Your task to perform on an android device: turn off location Image 0: 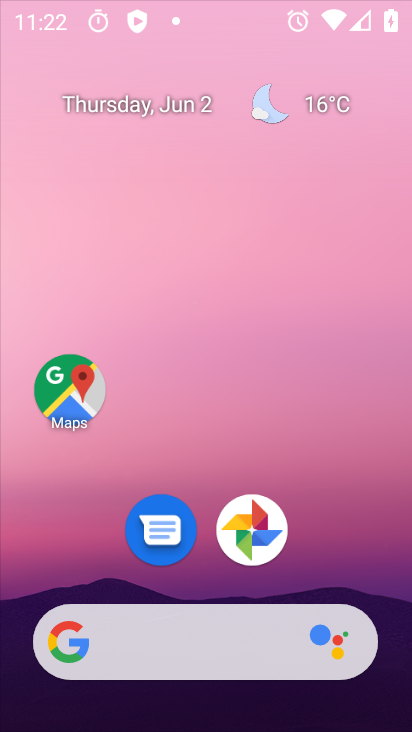
Step 0: drag from (179, 414) to (110, 67)
Your task to perform on an android device: turn off location Image 1: 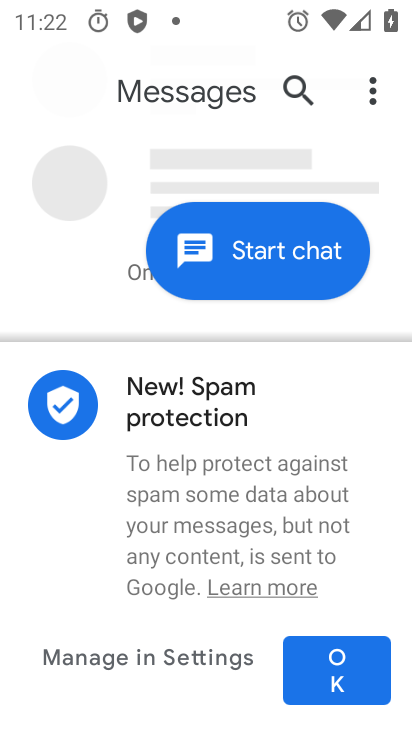
Step 1: press back button
Your task to perform on an android device: turn off location Image 2: 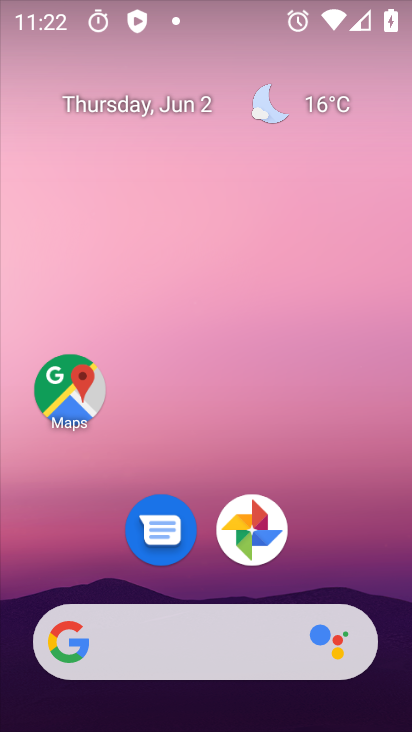
Step 2: drag from (214, 557) to (65, 18)
Your task to perform on an android device: turn off location Image 3: 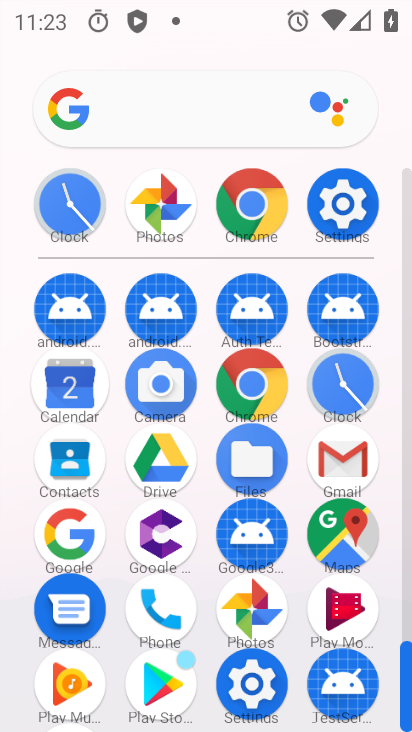
Step 3: click (249, 696)
Your task to perform on an android device: turn off location Image 4: 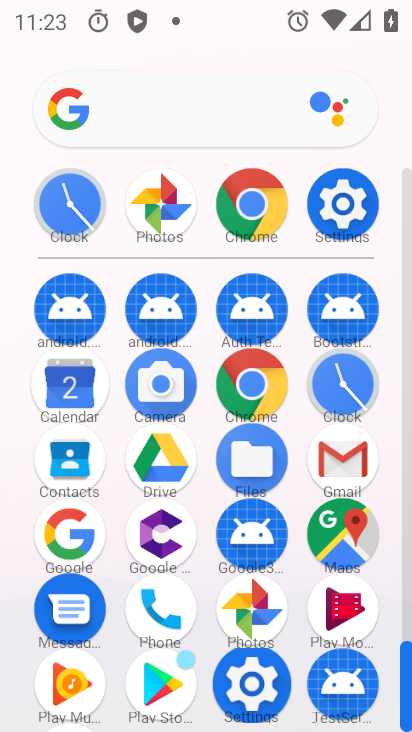
Step 4: click (256, 676)
Your task to perform on an android device: turn off location Image 5: 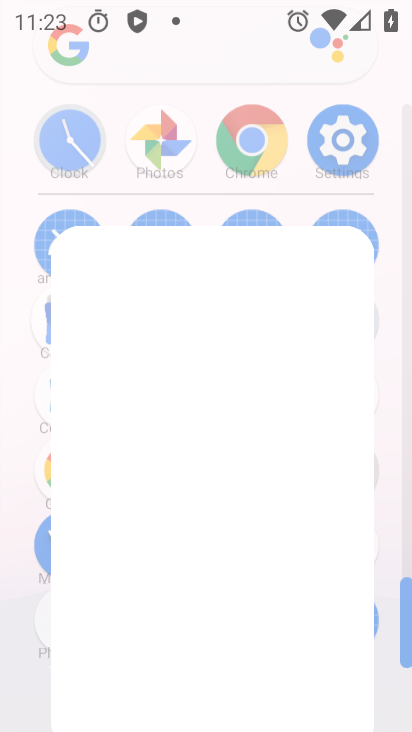
Step 5: click (257, 679)
Your task to perform on an android device: turn off location Image 6: 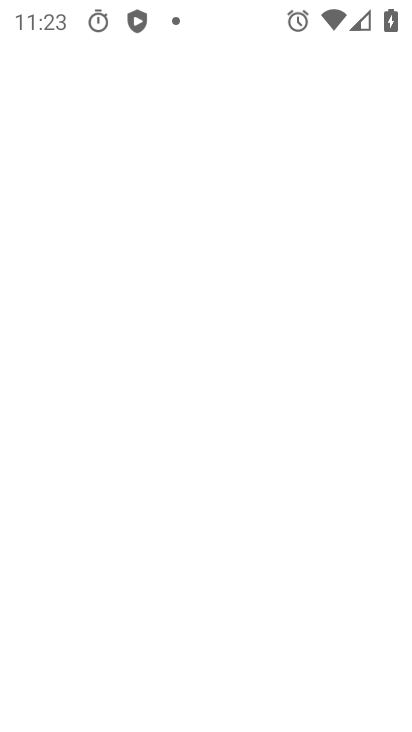
Step 6: click (257, 679)
Your task to perform on an android device: turn off location Image 7: 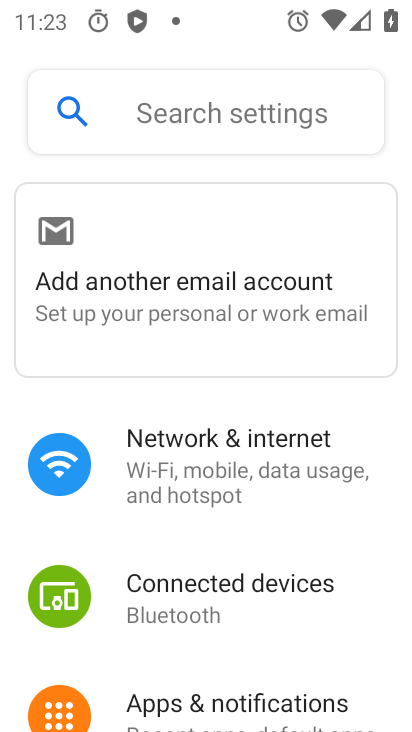
Step 7: drag from (170, 611) to (127, 249)
Your task to perform on an android device: turn off location Image 8: 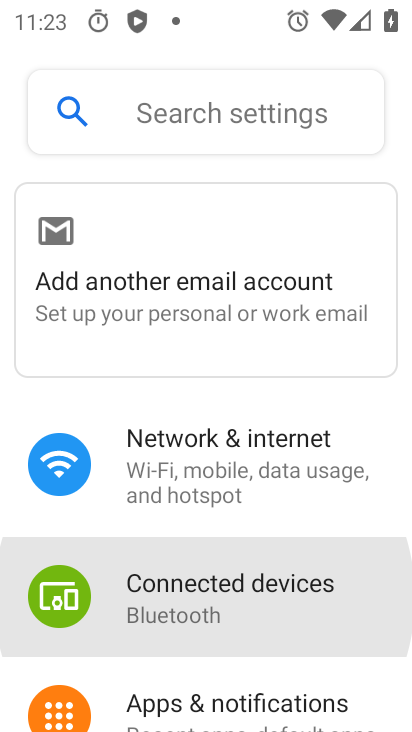
Step 8: drag from (169, 602) to (113, 337)
Your task to perform on an android device: turn off location Image 9: 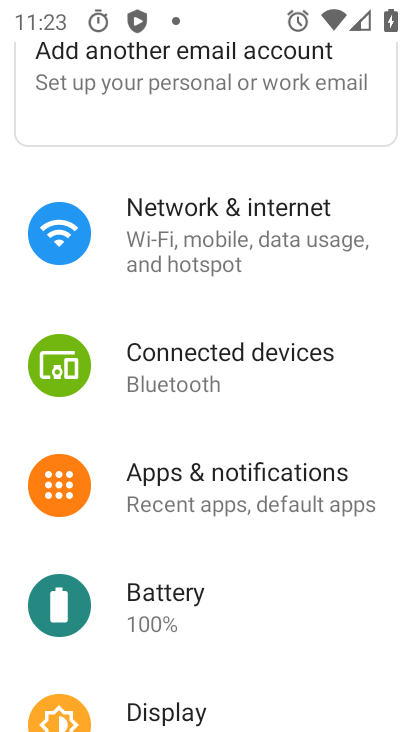
Step 9: drag from (194, 571) to (195, 156)
Your task to perform on an android device: turn off location Image 10: 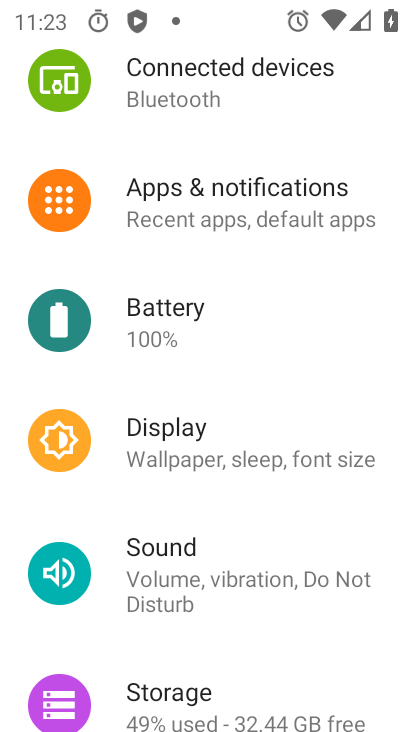
Step 10: drag from (194, 542) to (211, 197)
Your task to perform on an android device: turn off location Image 11: 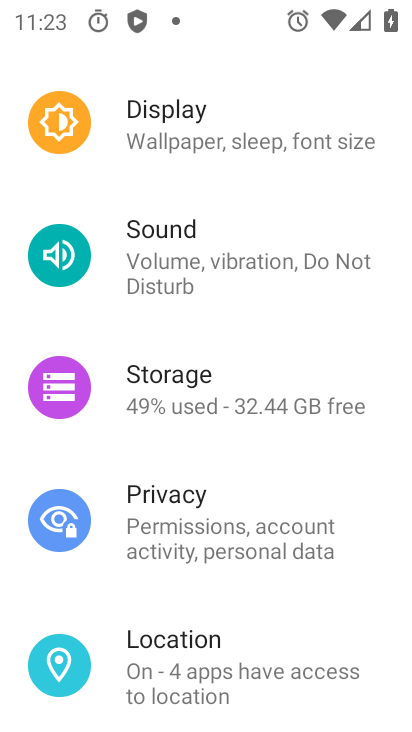
Step 11: click (186, 664)
Your task to perform on an android device: turn off location Image 12: 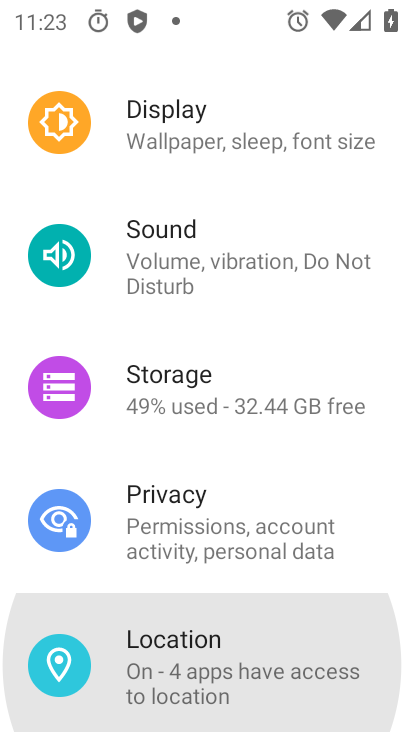
Step 12: click (189, 668)
Your task to perform on an android device: turn off location Image 13: 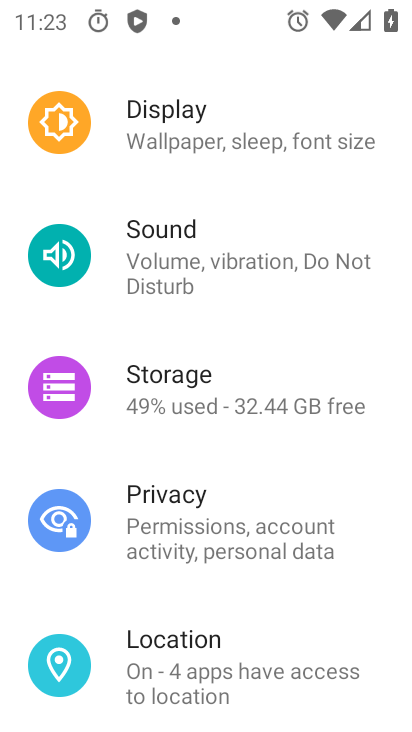
Step 13: click (190, 668)
Your task to perform on an android device: turn off location Image 14: 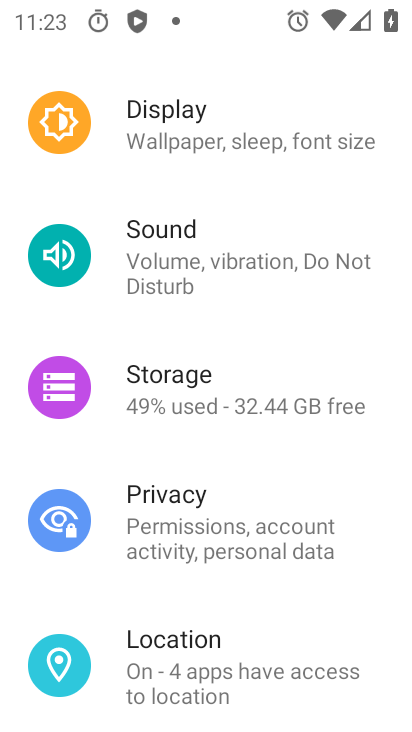
Step 14: click (195, 668)
Your task to perform on an android device: turn off location Image 15: 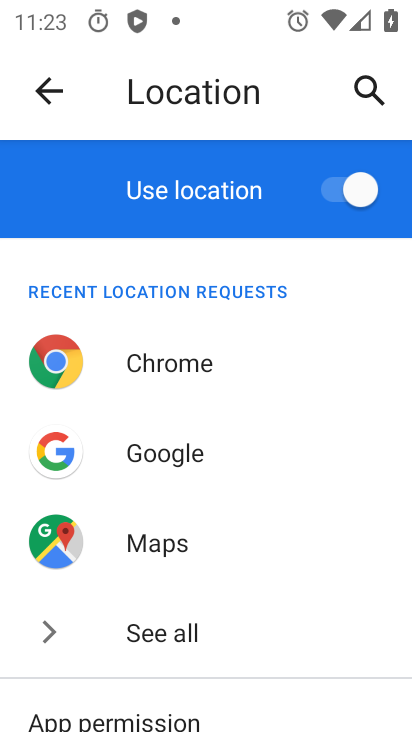
Step 15: drag from (249, 450) to (216, 153)
Your task to perform on an android device: turn off location Image 16: 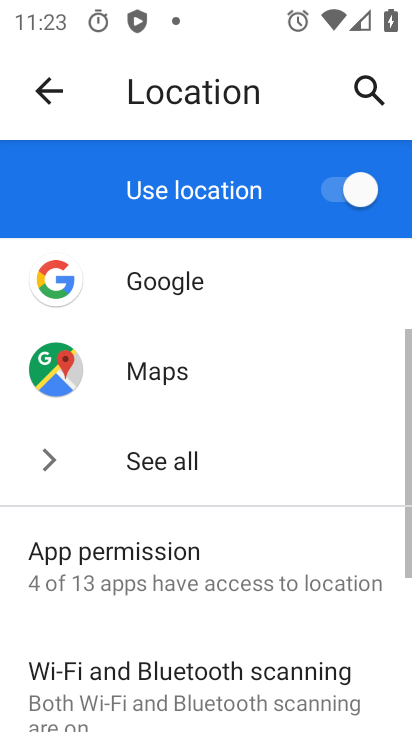
Step 16: drag from (213, 424) to (203, 11)
Your task to perform on an android device: turn off location Image 17: 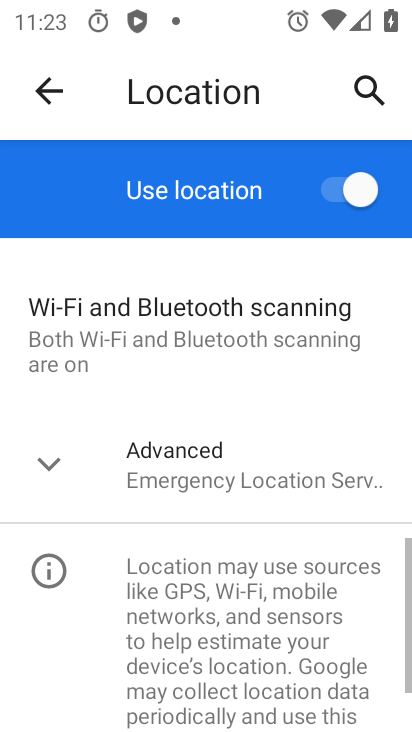
Step 17: drag from (226, 437) to (213, 135)
Your task to perform on an android device: turn off location Image 18: 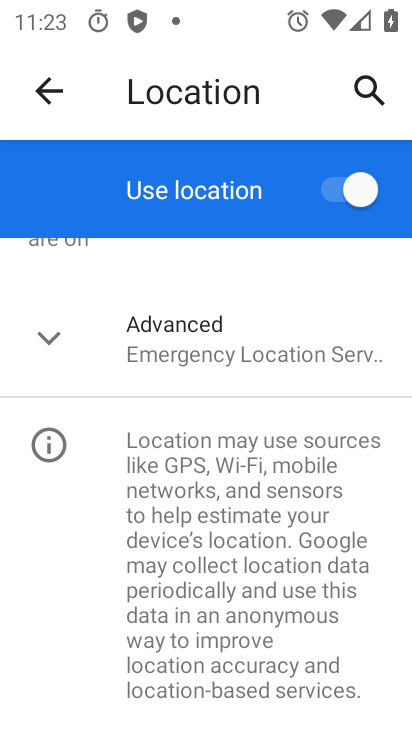
Step 18: click (362, 187)
Your task to perform on an android device: turn off location Image 19: 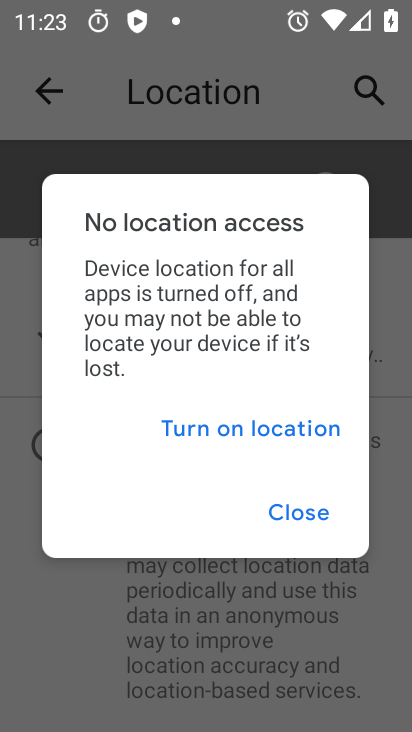
Step 19: task complete